Your task to perform on an android device: Play the last video I watched on Youtube Image 0: 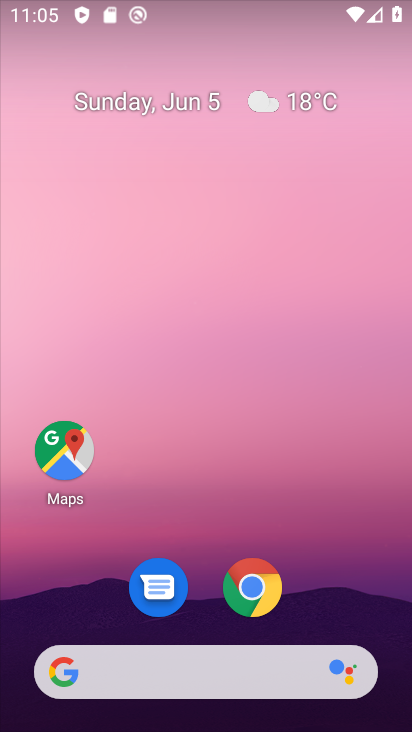
Step 0: drag from (192, 624) to (247, 6)
Your task to perform on an android device: Play the last video I watched on Youtube Image 1: 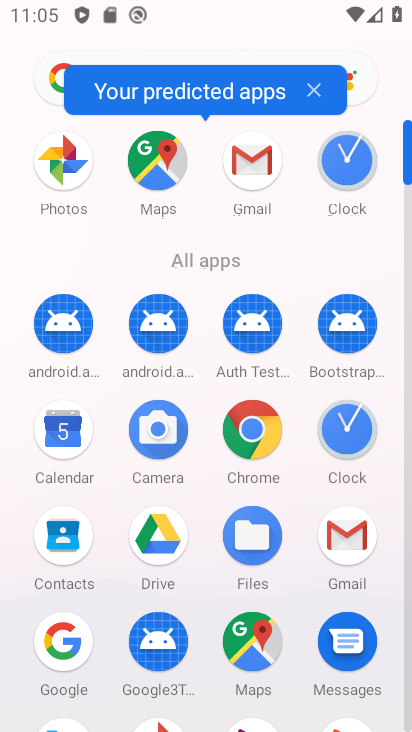
Step 1: drag from (207, 656) to (201, 321)
Your task to perform on an android device: Play the last video I watched on Youtube Image 2: 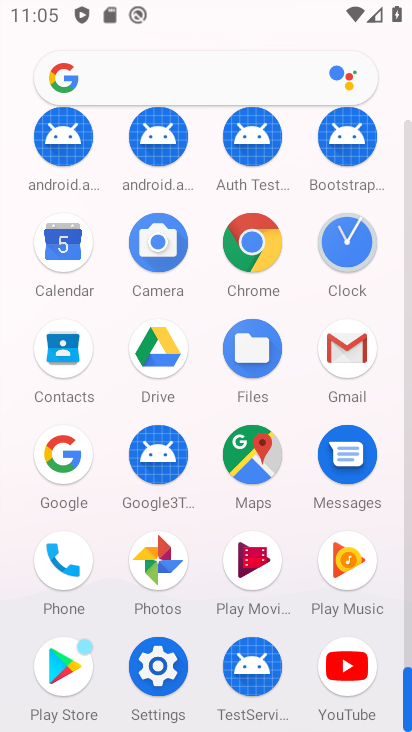
Step 2: click (344, 664)
Your task to perform on an android device: Play the last video I watched on Youtube Image 3: 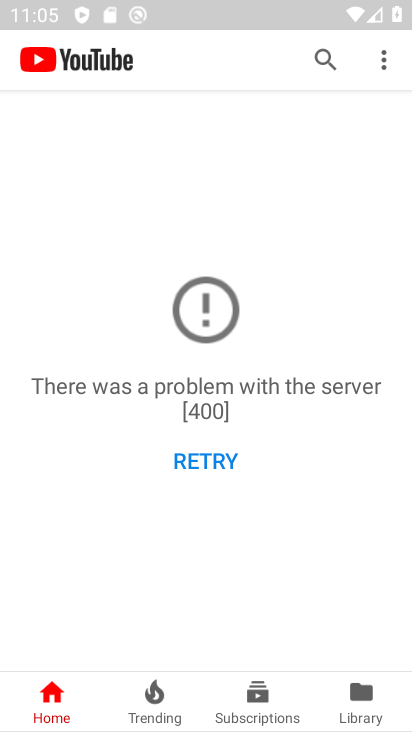
Step 3: click (365, 697)
Your task to perform on an android device: Play the last video I watched on Youtube Image 4: 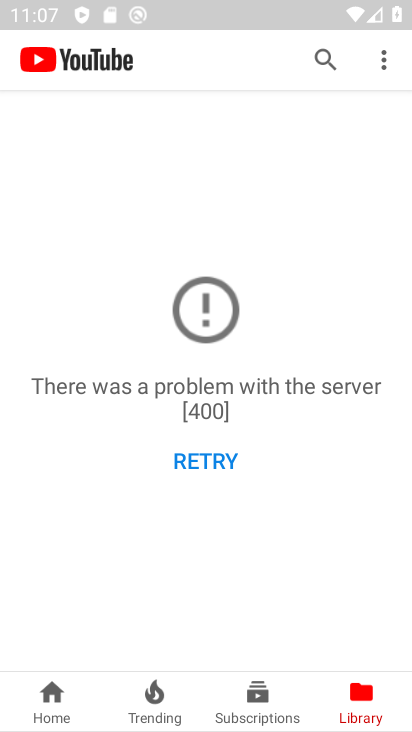
Step 4: task complete